Your task to perform on an android device: toggle priority inbox in the gmail app Image 0: 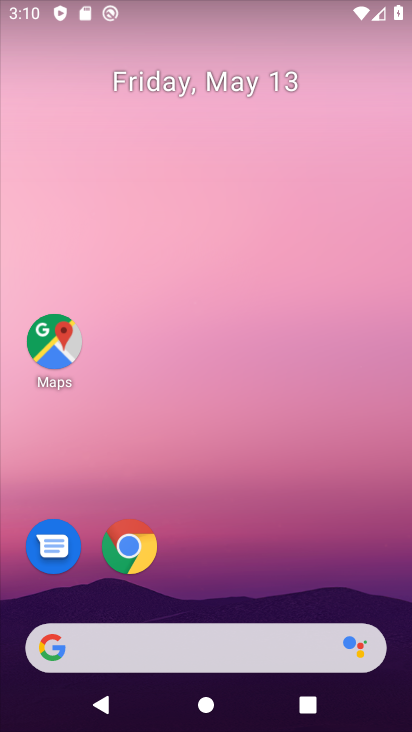
Step 0: drag from (215, 636) to (323, 198)
Your task to perform on an android device: toggle priority inbox in the gmail app Image 1: 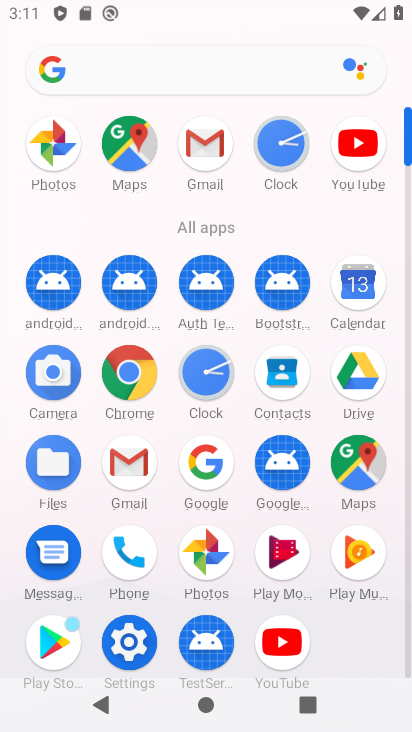
Step 1: click (121, 466)
Your task to perform on an android device: toggle priority inbox in the gmail app Image 2: 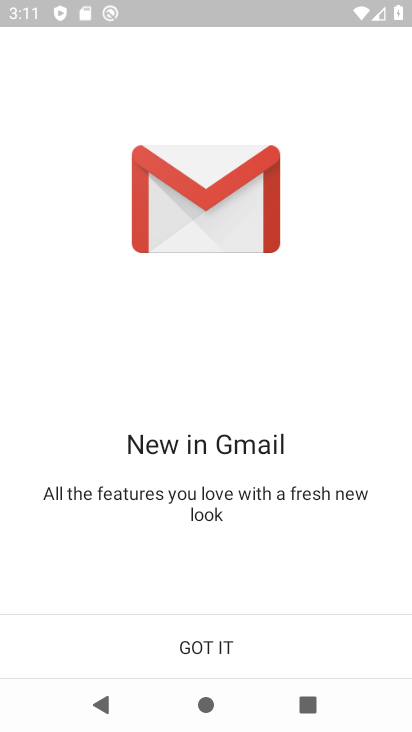
Step 2: click (239, 639)
Your task to perform on an android device: toggle priority inbox in the gmail app Image 3: 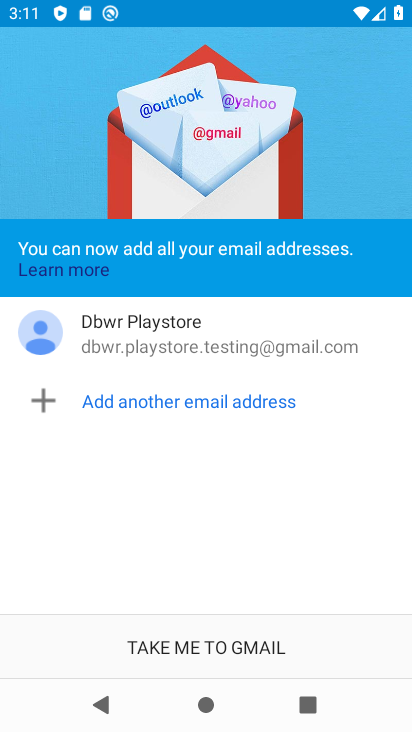
Step 3: click (245, 650)
Your task to perform on an android device: toggle priority inbox in the gmail app Image 4: 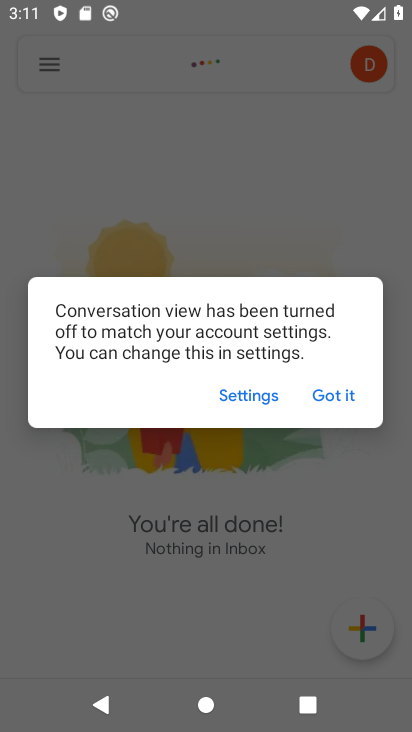
Step 4: click (357, 394)
Your task to perform on an android device: toggle priority inbox in the gmail app Image 5: 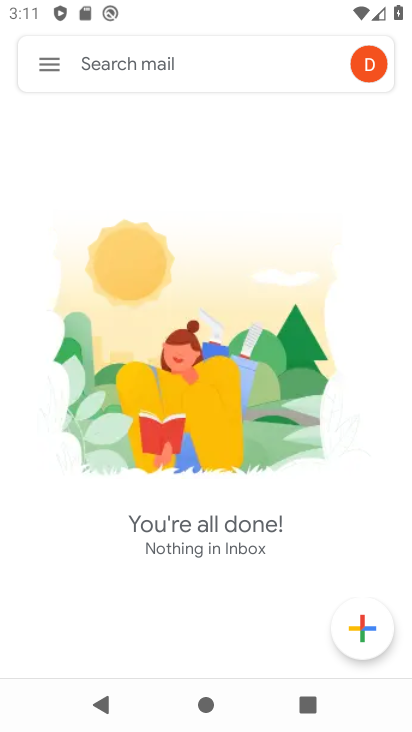
Step 5: click (73, 70)
Your task to perform on an android device: toggle priority inbox in the gmail app Image 6: 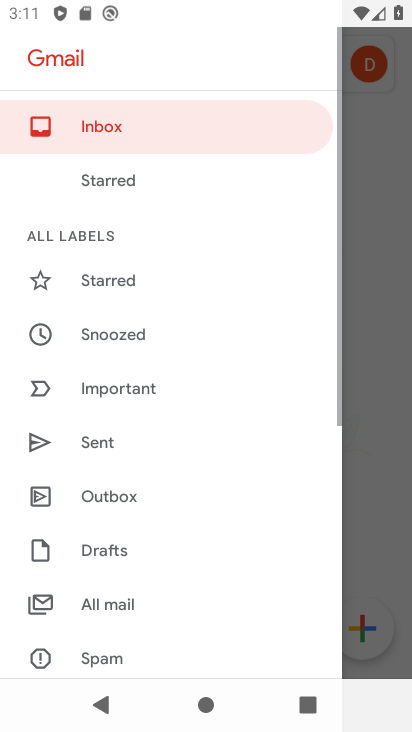
Step 6: drag from (185, 527) to (309, 264)
Your task to perform on an android device: toggle priority inbox in the gmail app Image 7: 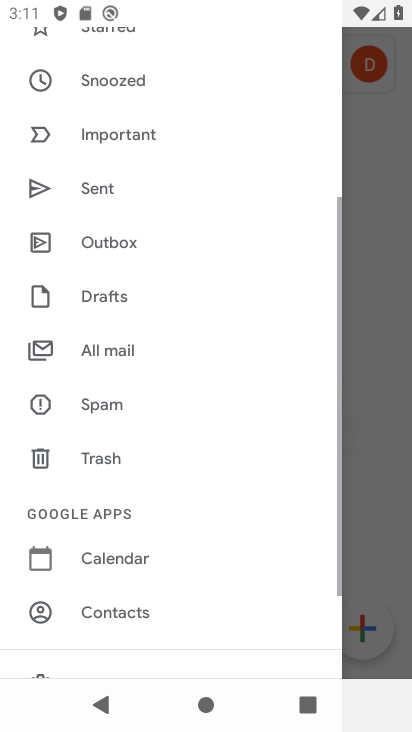
Step 7: drag from (213, 559) to (291, 305)
Your task to perform on an android device: toggle priority inbox in the gmail app Image 8: 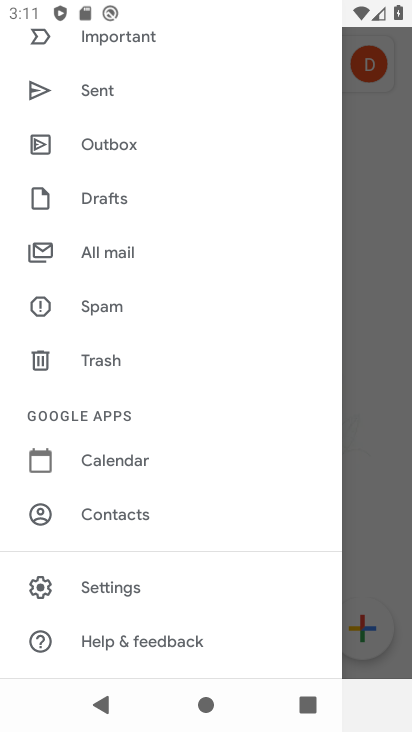
Step 8: click (143, 598)
Your task to perform on an android device: toggle priority inbox in the gmail app Image 9: 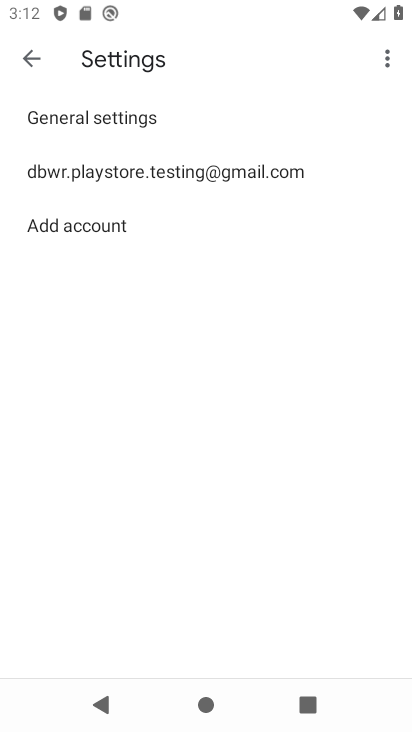
Step 9: click (244, 172)
Your task to perform on an android device: toggle priority inbox in the gmail app Image 10: 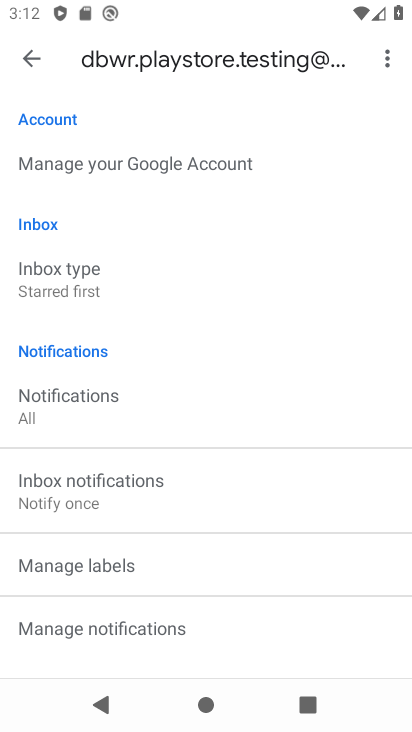
Step 10: drag from (216, 566) to (314, 313)
Your task to perform on an android device: toggle priority inbox in the gmail app Image 11: 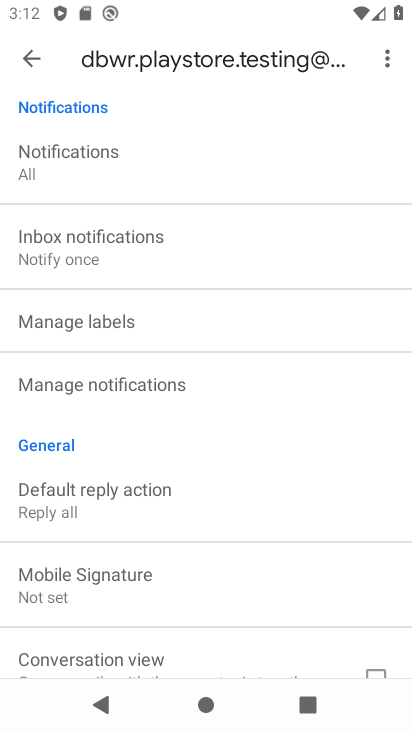
Step 11: drag from (254, 182) to (229, 580)
Your task to perform on an android device: toggle priority inbox in the gmail app Image 12: 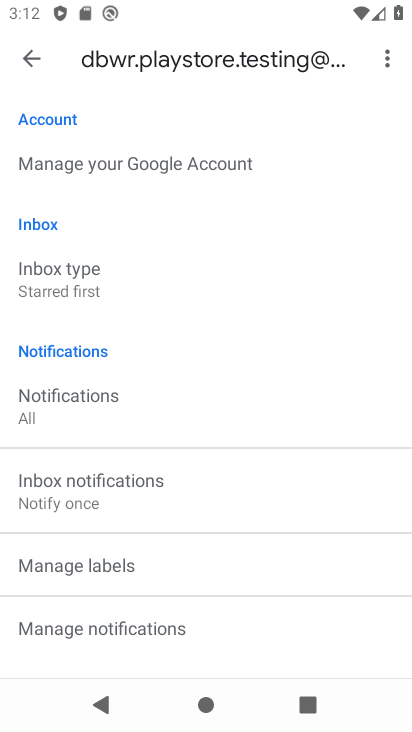
Step 12: click (151, 279)
Your task to perform on an android device: toggle priority inbox in the gmail app Image 13: 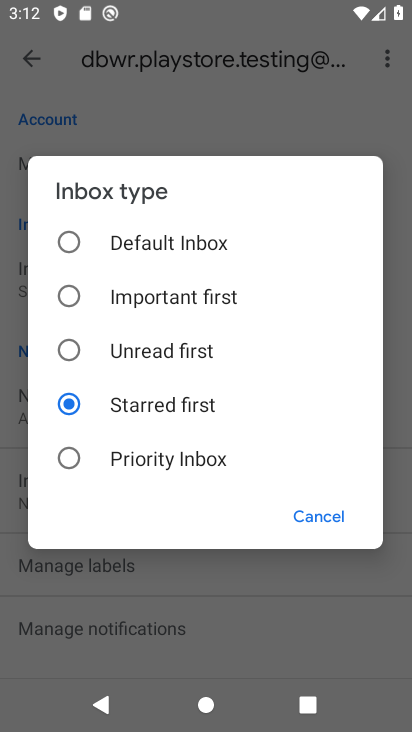
Step 13: click (175, 456)
Your task to perform on an android device: toggle priority inbox in the gmail app Image 14: 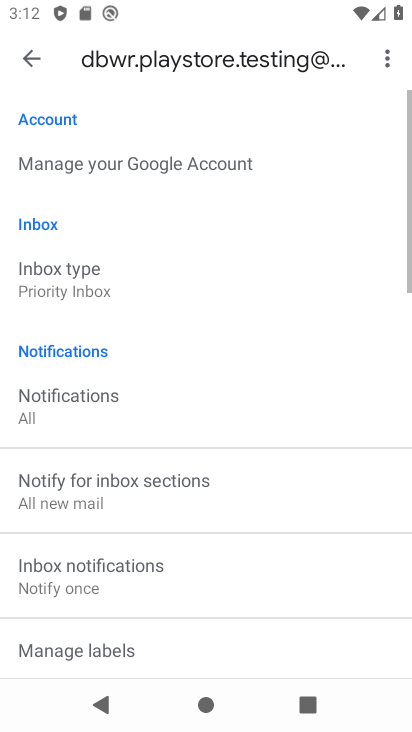
Step 14: task complete